Your task to perform on an android device: manage bookmarks in the chrome app Image 0: 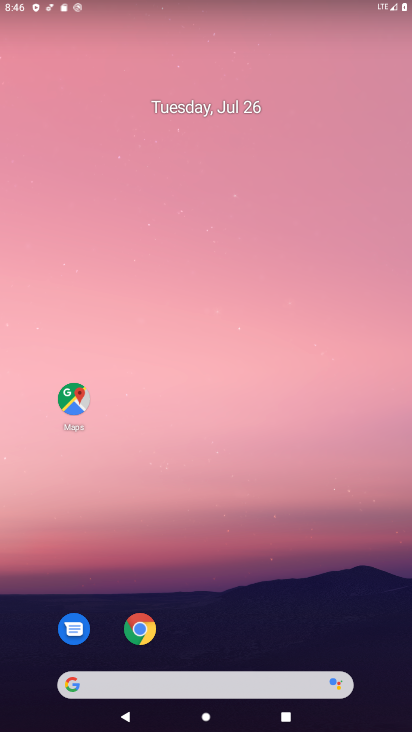
Step 0: click (139, 643)
Your task to perform on an android device: manage bookmarks in the chrome app Image 1: 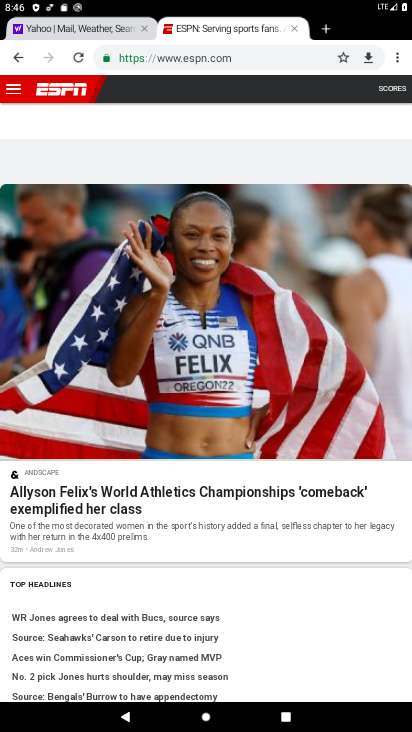
Step 1: click (396, 56)
Your task to perform on an android device: manage bookmarks in the chrome app Image 2: 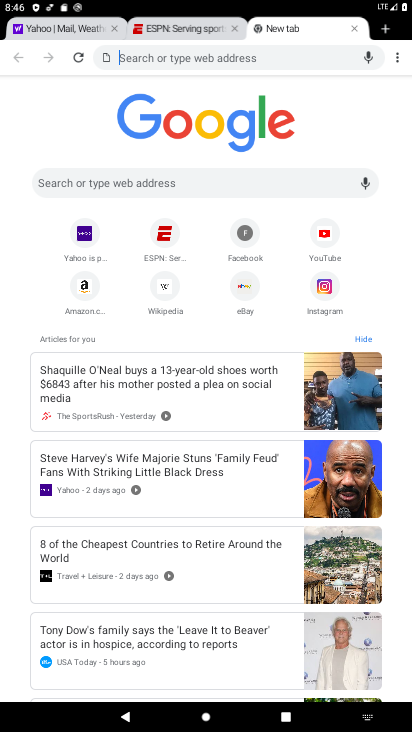
Step 2: click (394, 62)
Your task to perform on an android device: manage bookmarks in the chrome app Image 3: 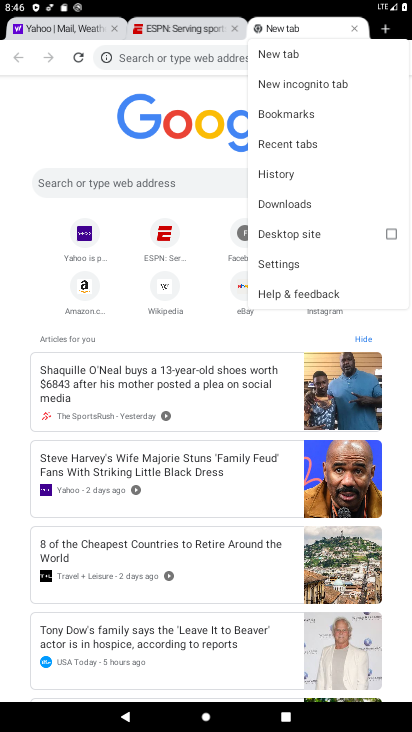
Step 3: click (280, 113)
Your task to perform on an android device: manage bookmarks in the chrome app Image 4: 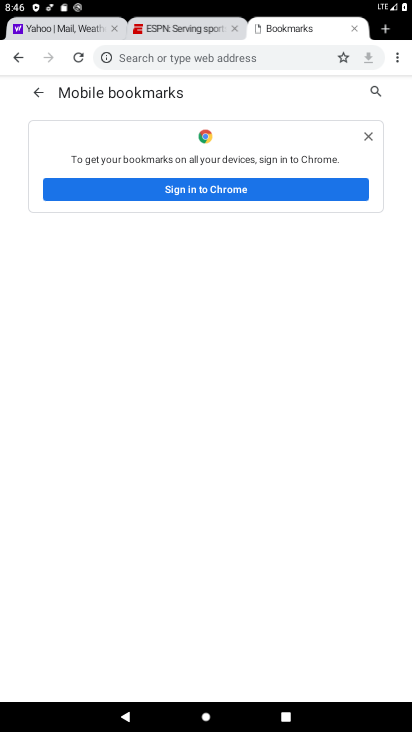
Step 4: click (363, 134)
Your task to perform on an android device: manage bookmarks in the chrome app Image 5: 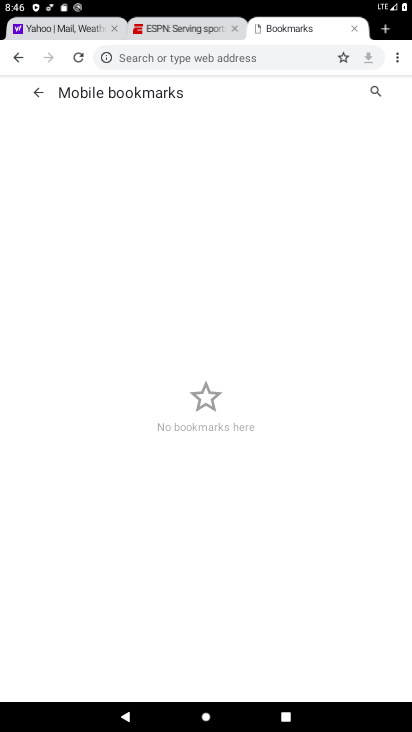
Step 5: task complete